Your task to perform on an android device: Open Google Chrome Image 0: 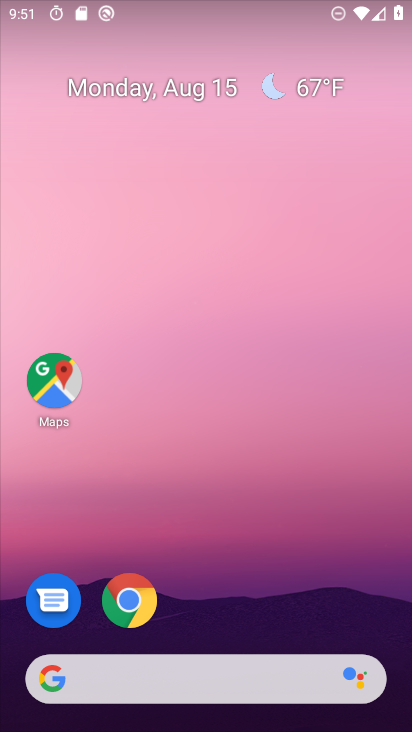
Step 0: click (131, 606)
Your task to perform on an android device: Open Google Chrome Image 1: 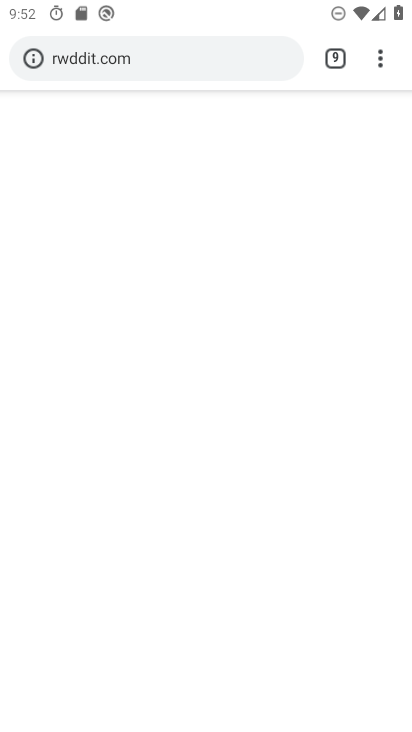
Step 1: task complete